Your task to perform on an android device: Is it going to rain today? Image 0: 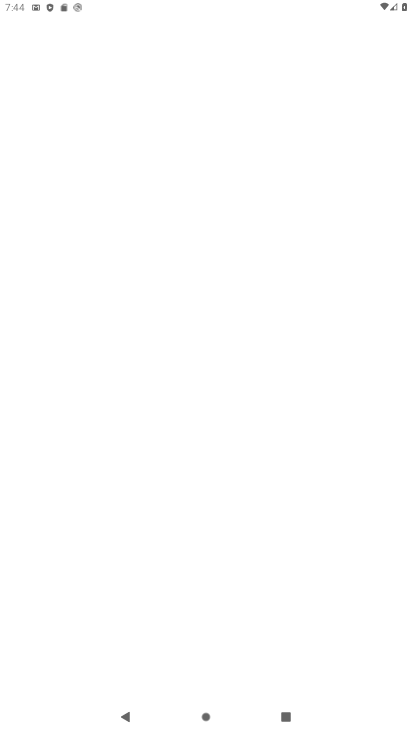
Step 0: press home button
Your task to perform on an android device: Is it going to rain today? Image 1: 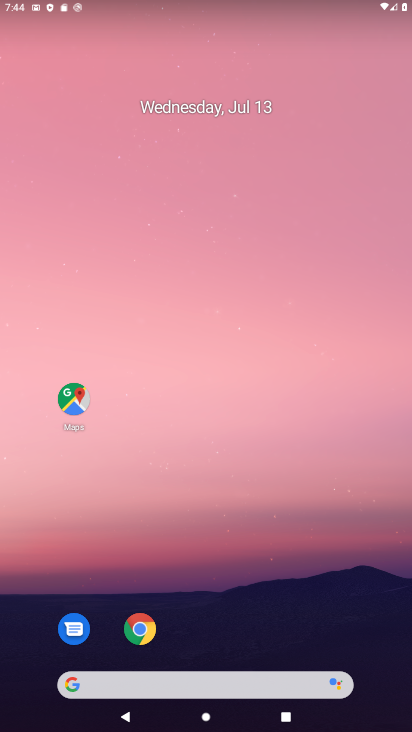
Step 1: drag from (223, 645) to (287, 65)
Your task to perform on an android device: Is it going to rain today? Image 2: 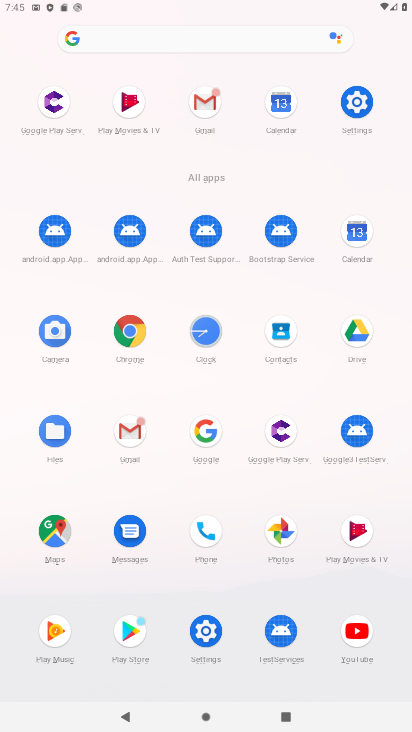
Step 2: click (213, 435)
Your task to perform on an android device: Is it going to rain today? Image 3: 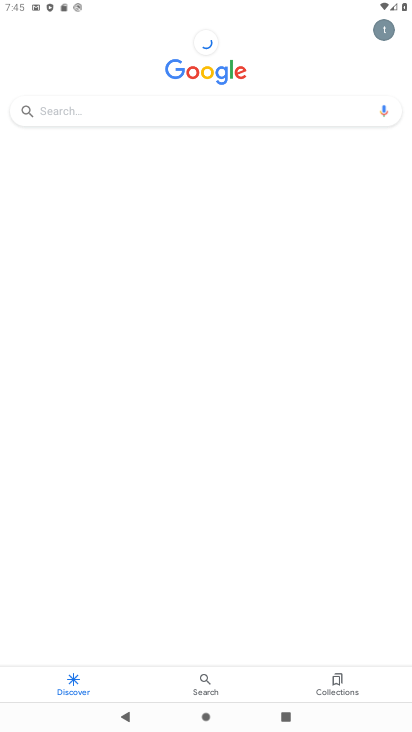
Step 3: click (141, 116)
Your task to perform on an android device: Is it going to rain today? Image 4: 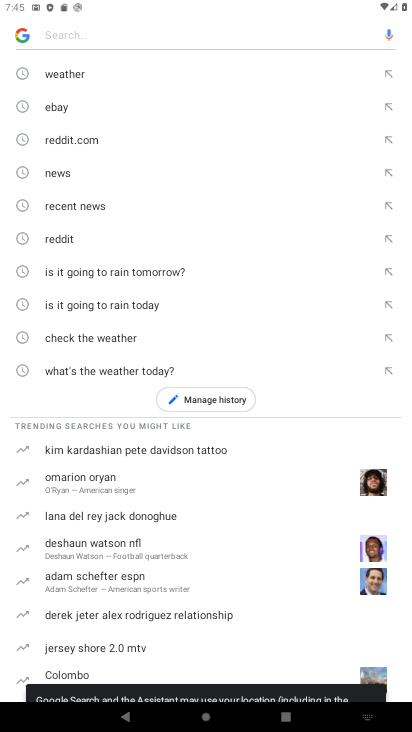
Step 4: click (139, 307)
Your task to perform on an android device: Is it going to rain today? Image 5: 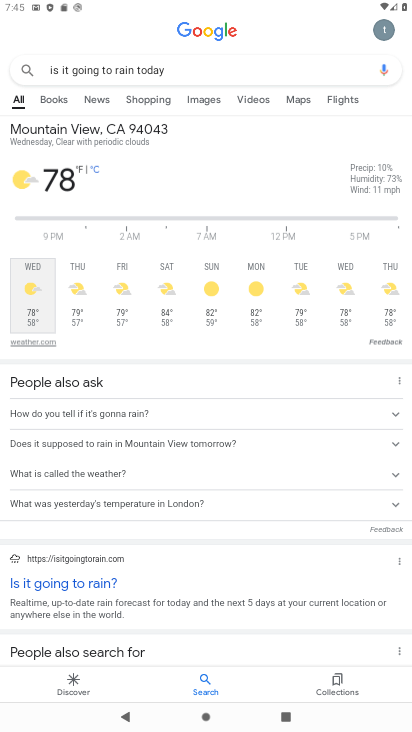
Step 5: task complete